Your task to perform on an android device: open wifi settings Image 0: 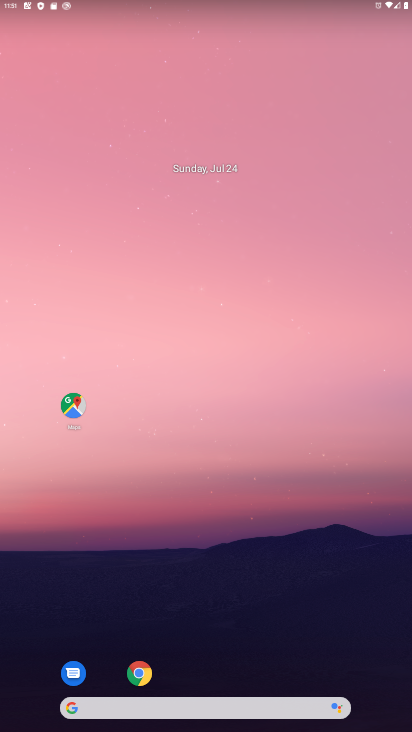
Step 0: drag from (363, 585) to (228, 95)
Your task to perform on an android device: open wifi settings Image 1: 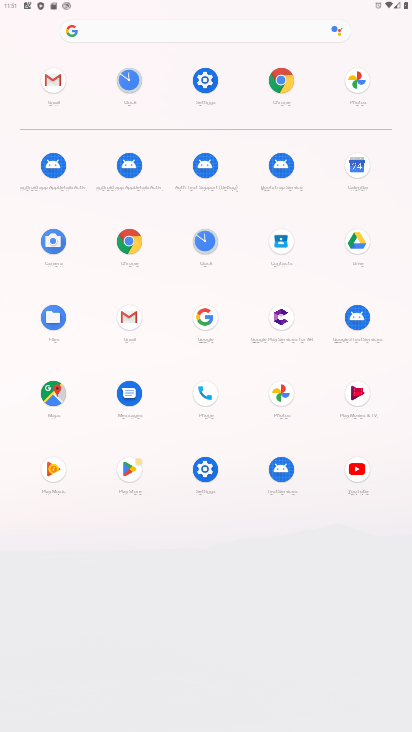
Step 1: click (207, 83)
Your task to perform on an android device: open wifi settings Image 2: 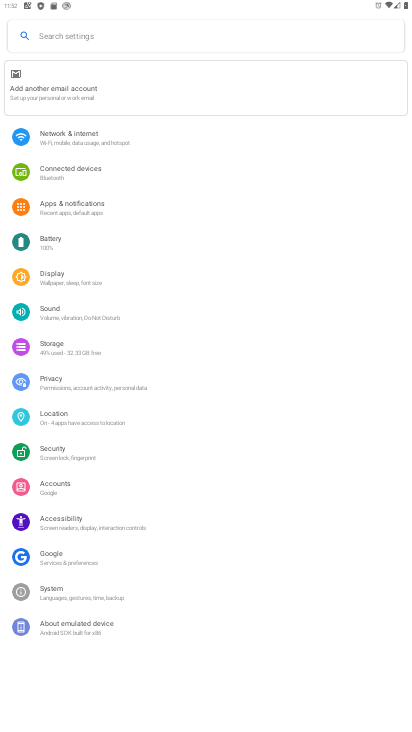
Step 2: click (90, 135)
Your task to perform on an android device: open wifi settings Image 3: 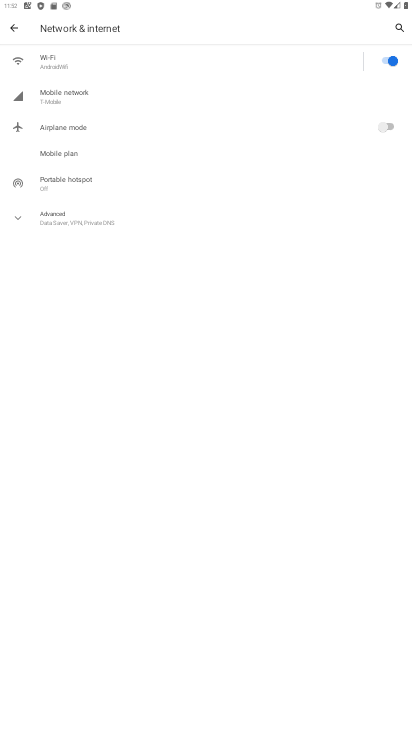
Step 3: task complete